Your task to perform on an android device: turn pop-ups off in chrome Image 0: 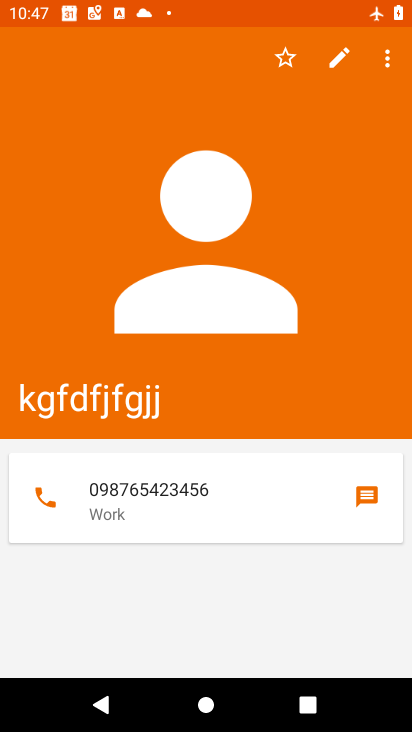
Step 0: press home button
Your task to perform on an android device: turn pop-ups off in chrome Image 1: 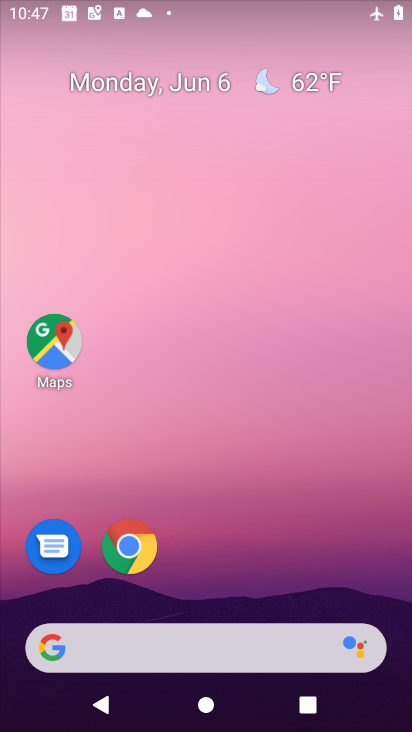
Step 1: click (133, 547)
Your task to perform on an android device: turn pop-ups off in chrome Image 2: 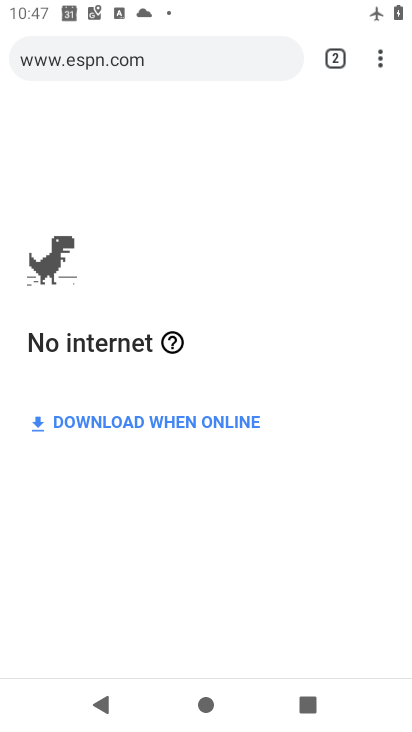
Step 2: click (378, 63)
Your task to perform on an android device: turn pop-ups off in chrome Image 3: 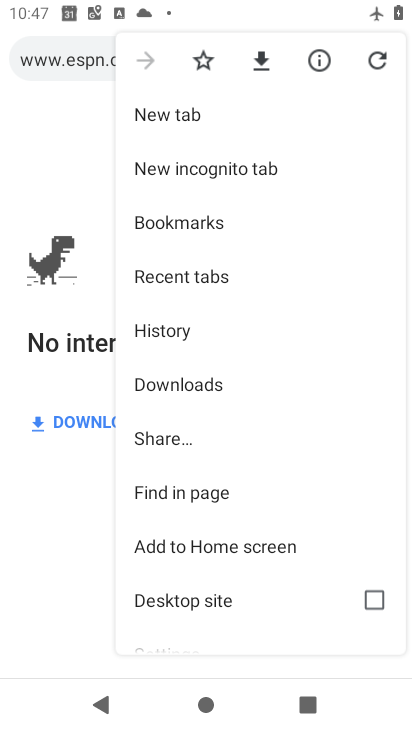
Step 3: drag from (276, 590) to (292, 261)
Your task to perform on an android device: turn pop-ups off in chrome Image 4: 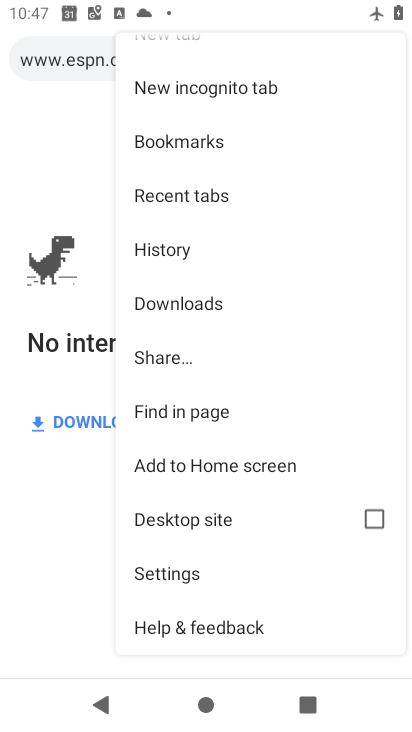
Step 4: click (175, 561)
Your task to perform on an android device: turn pop-ups off in chrome Image 5: 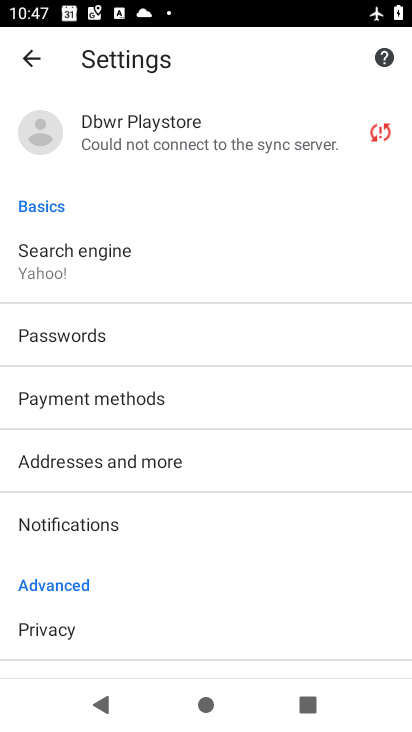
Step 5: drag from (214, 617) to (210, 394)
Your task to perform on an android device: turn pop-ups off in chrome Image 6: 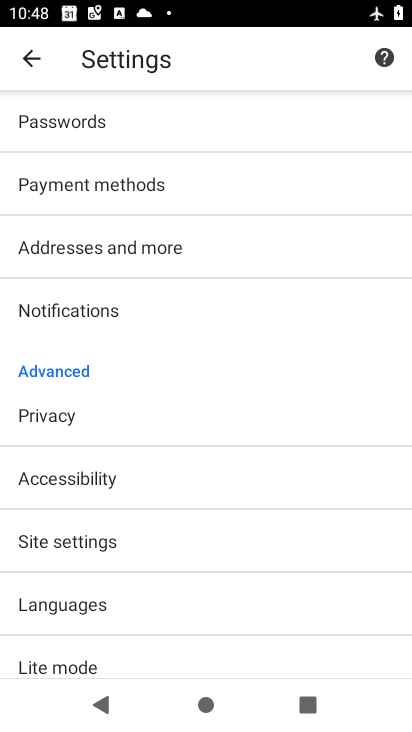
Step 6: click (80, 542)
Your task to perform on an android device: turn pop-ups off in chrome Image 7: 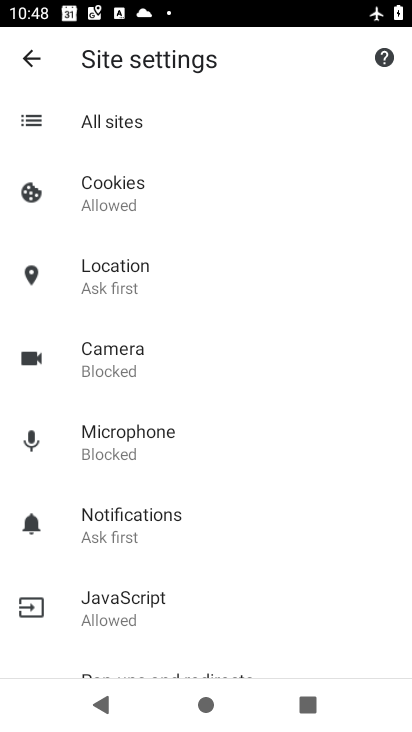
Step 7: drag from (219, 614) to (189, 314)
Your task to perform on an android device: turn pop-ups off in chrome Image 8: 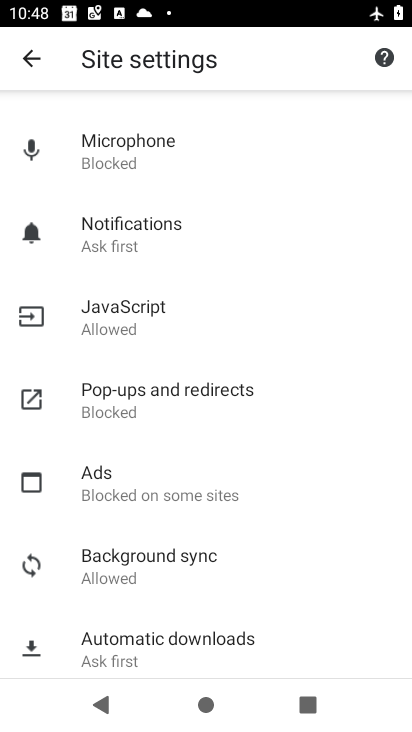
Step 8: click (132, 394)
Your task to perform on an android device: turn pop-ups off in chrome Image 9: 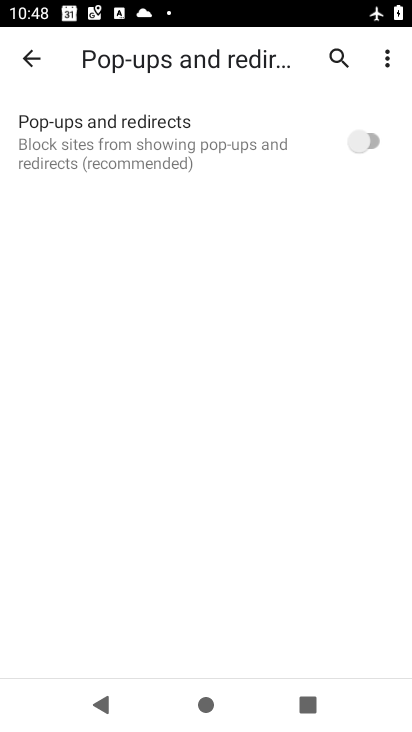
Step 9: task complete